Your task to perform on an android device: change your default location settings in chrome Image 0: 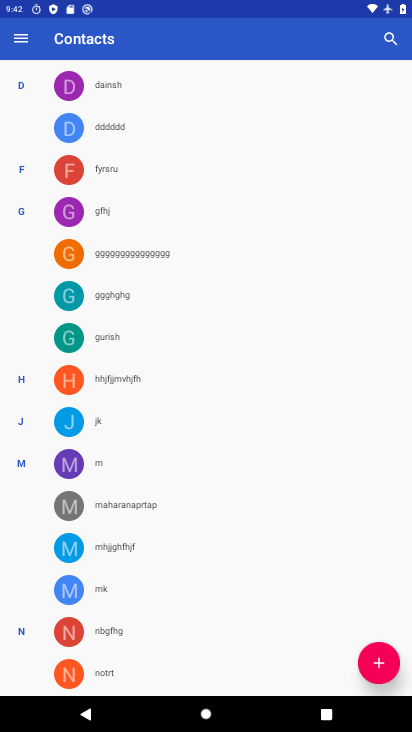
Step 0: press home button
Your task to perform on an android device: change your default location settings in chrome Image 1: 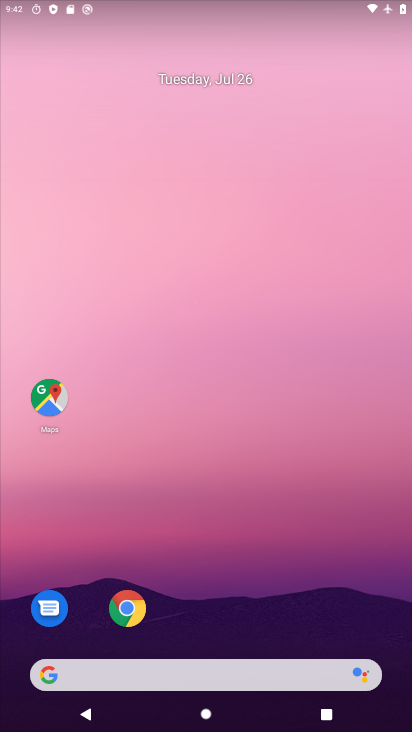
Step 1: click (141, 602)
Your task to perform on an android device: change your default location settings in chrome Image 2: 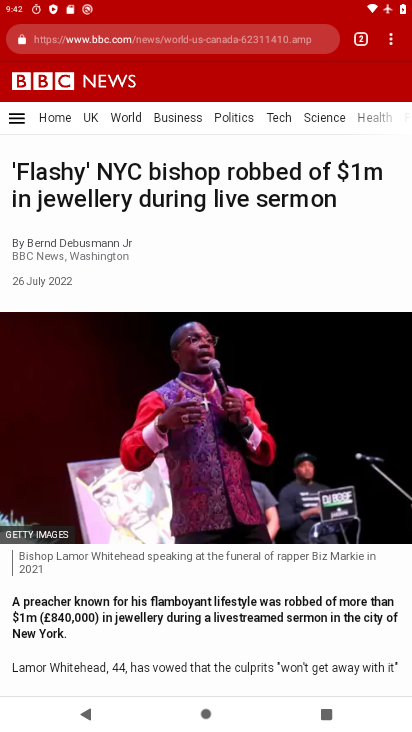
Step 2: click (395, 38)
Your task to perform on an android device: change your default location settings in chrome Image 3: 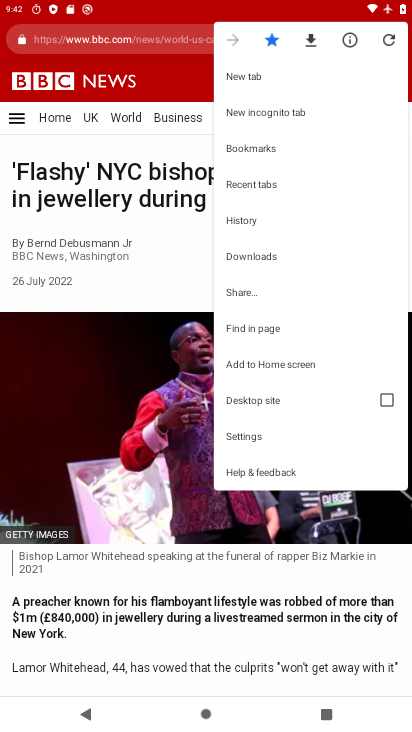
Step 3: click (262, 427)
Your task to perform on an android device: change your default location settings in chrome Image 4: 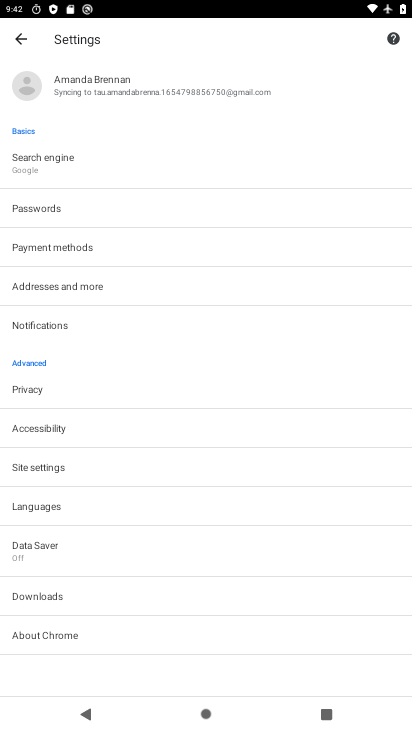
Step 4: click (93, 461)
Your task to perform on an android device: change your default location settings in chrome Image 5: 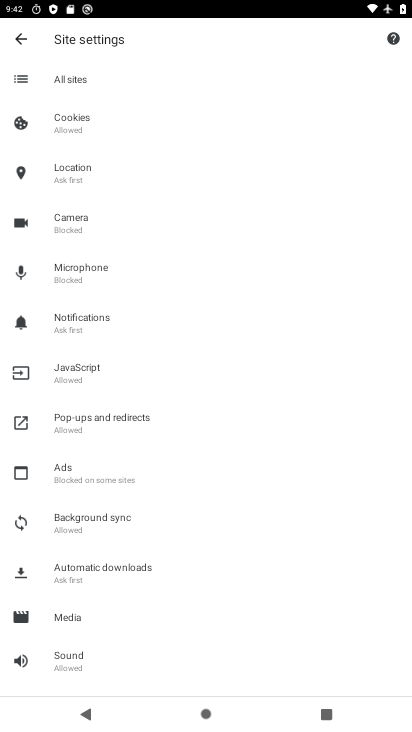
Step 5: click (129, 166)
Your task to perform on an android device: change your default location settings in chrome Image 6: 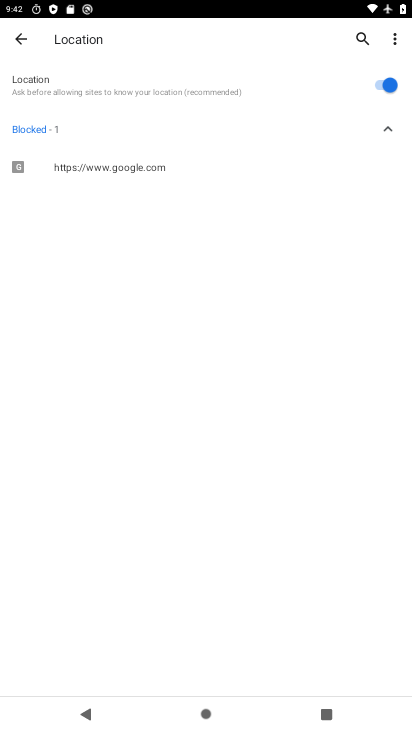
Step 6: click (373, 86)
Your task to perform on an android device: change your default location settings in chrome Image 7: 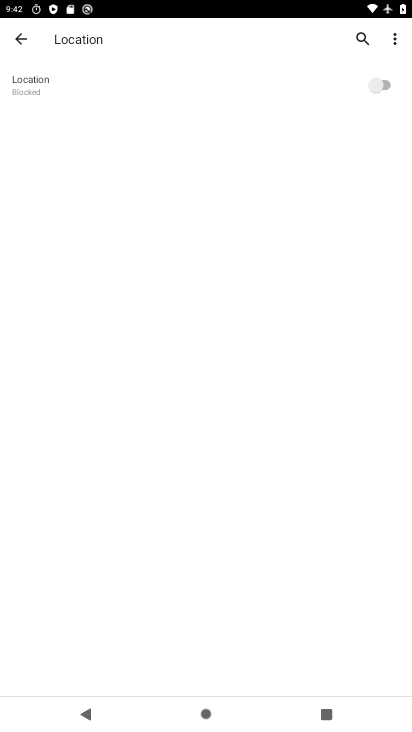
Step 7: task complete